Your task to perform on an android device: Go to battery settings Image 0: 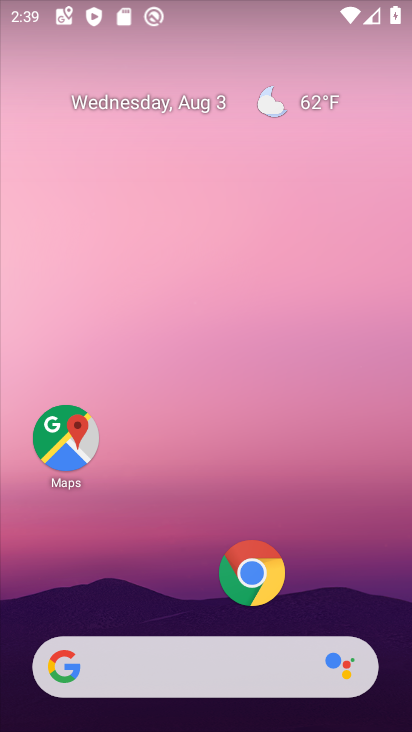
Step 0: drag from (166, 565) to (136, 0)
Your task to perform on an android device: Go to battery settings Image 1: 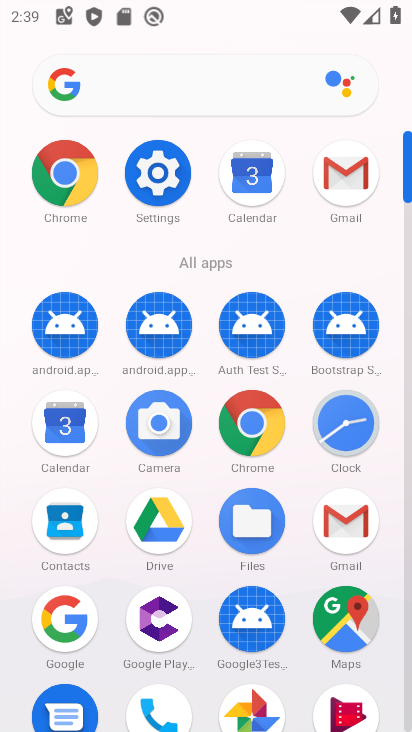
Step 1: click (162, 195)
Your task to perform on an android device: Go to battery settings Image 2: 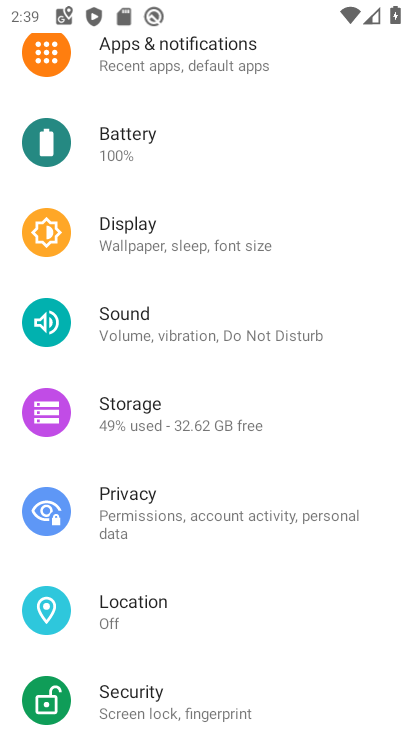
Step 2: click (146, 141)
Your task to perform on an android device: Go to battery settings Image 3: 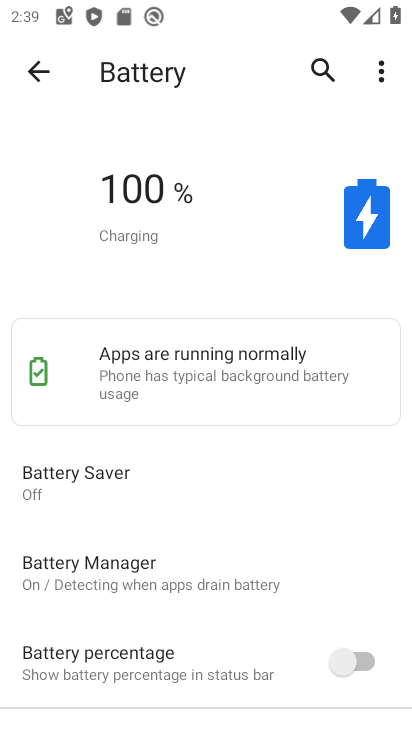
Step 3: task complete